Your task to perform on an android device: open chrome privacy settings Image 0: 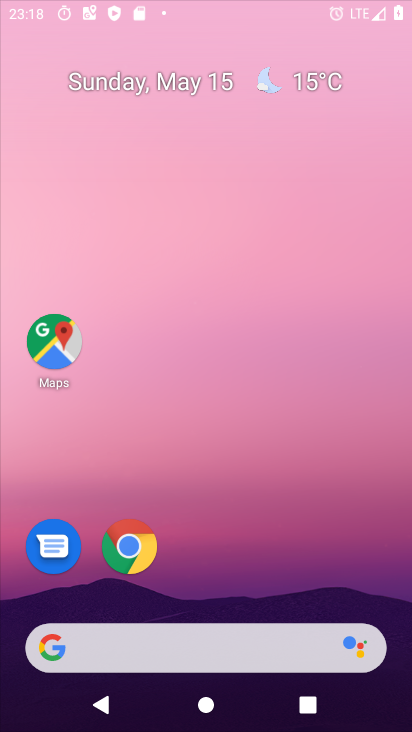
Step 0: drag from (180, 4) to (136, 52)
Your task to perform on an android device: open chrome privacy settings Image 1: 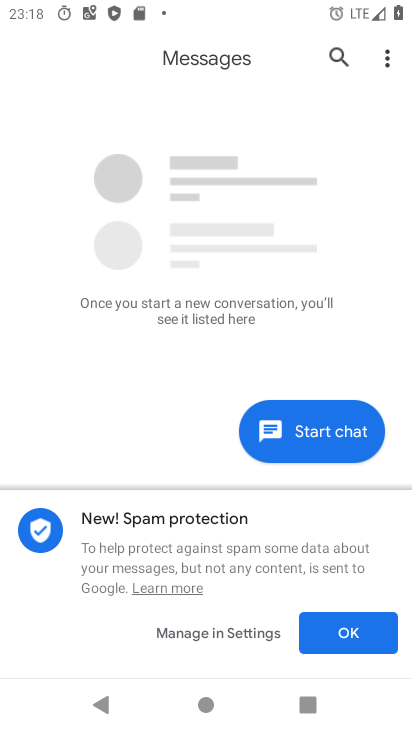
Step 1: press back button
Your task to perform on an android device: open chrome privacy settings Image 2: 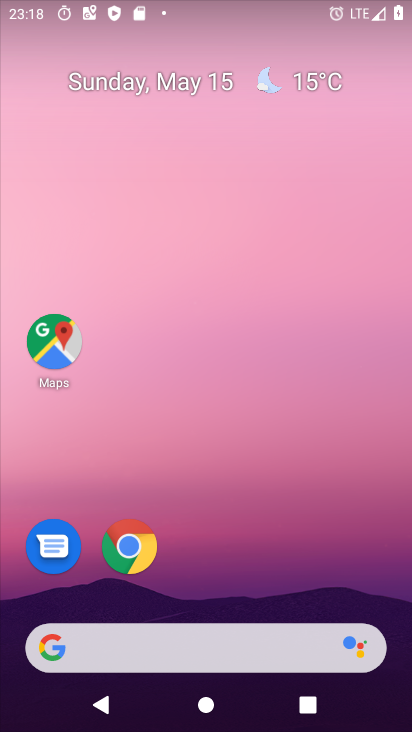
Step 2: drag from (232, 642) to (124, 63)
Your task to perform on an android device: open chrome privacy settings Image 3: 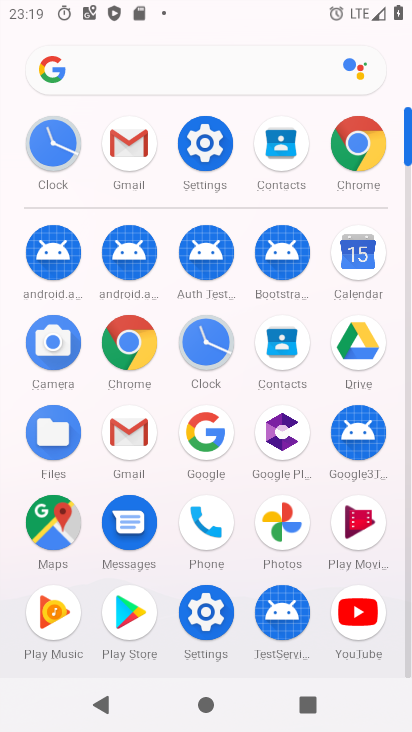
Step 3: click (203, 605)
Your task to perform on an android device: open chrome privacy settings Image 4: 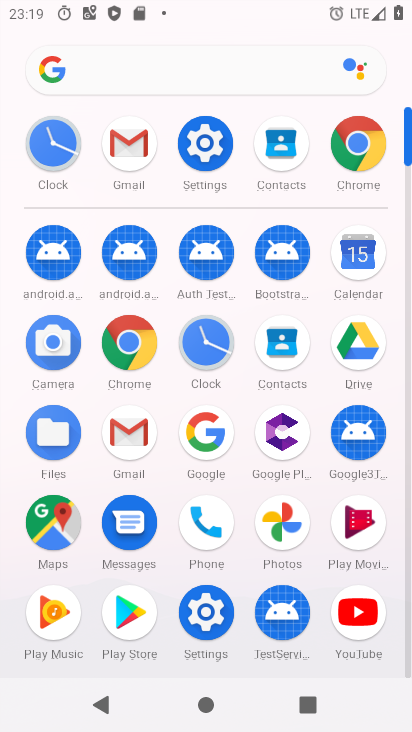
Step 4: click (204, 606)
Your task to perform on an android device: open chrome privacy settings Image 5: 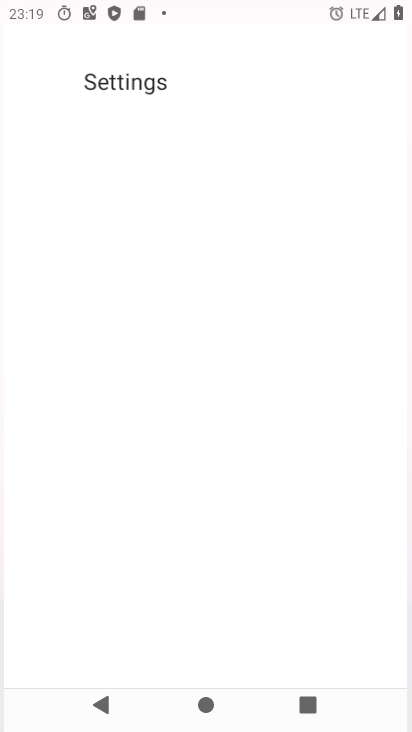
Step 5: click (206, 608)
Your task to perform on an android device: open chrome privacy settings Image 6: 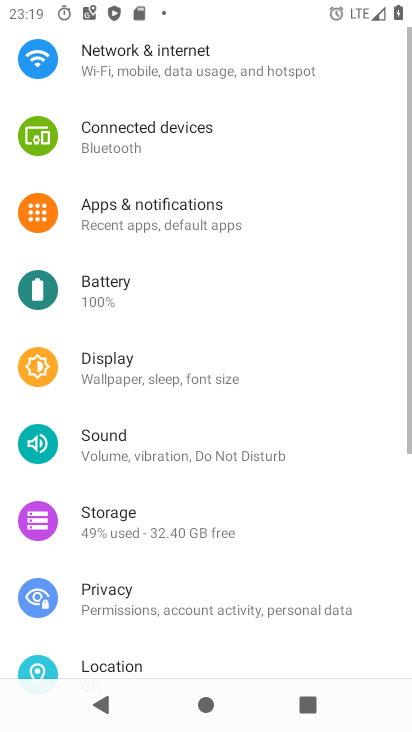
Step 6: click (207, 609)
Your task to perform on an android device: open chrome privacy settings Image 7: 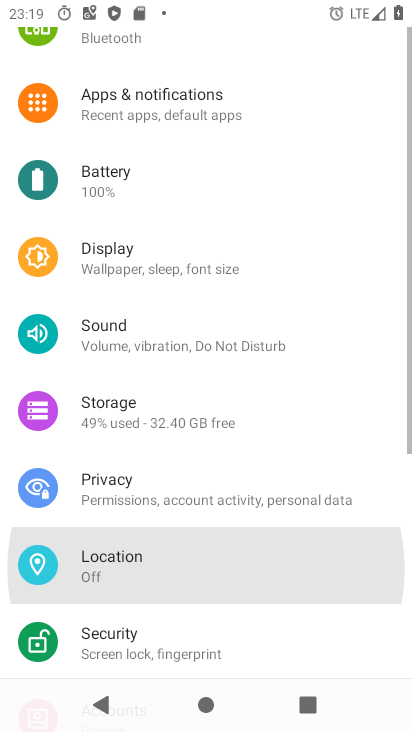
Step 7: click (208, 610)
Your task to perform on an android device: open chrome privacy settings Image 8: 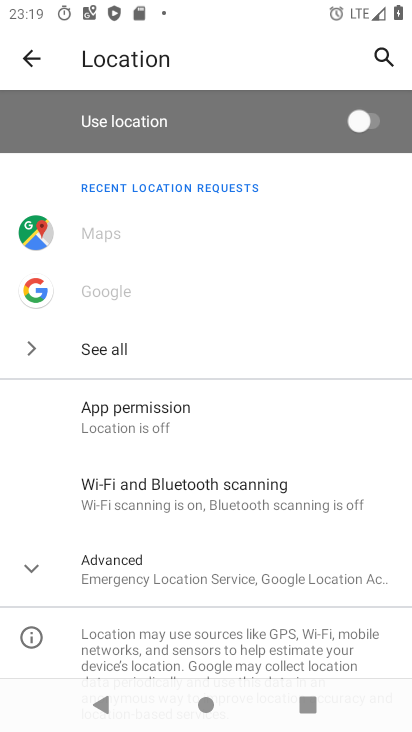
Step 8: click (28, 52)
Your task to perform on an android device: open chrome privacy settings Image 9: 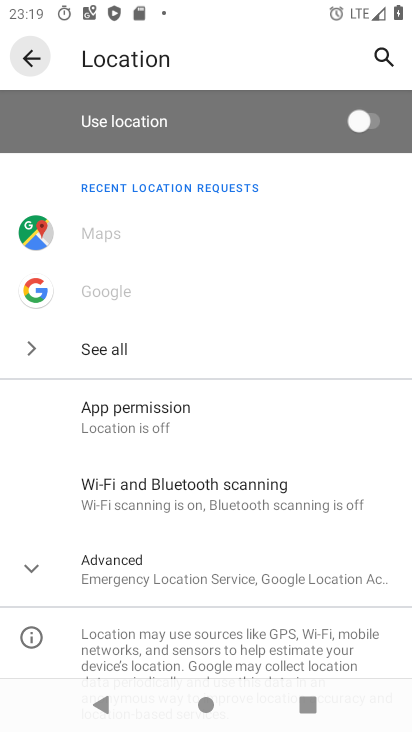
Step 9: click (29, 55)
Your task to perform on an android device: open chrome privacy settings Image 10: 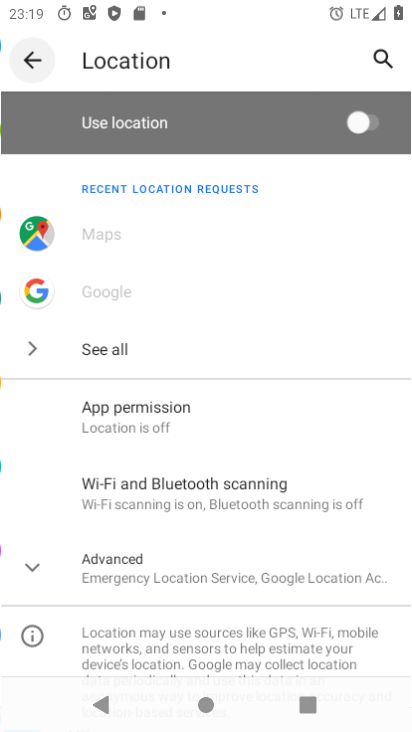
Step 10: click (30, 57)
Your task to perform on an android device: open chrome privacy settings Image 11: 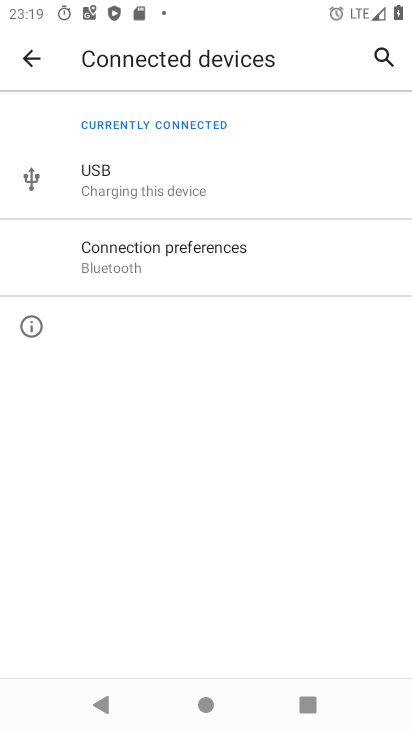
Step 11: click (26, 46)
Your task to perform on an android device: open chrome privacy settings Image 12: 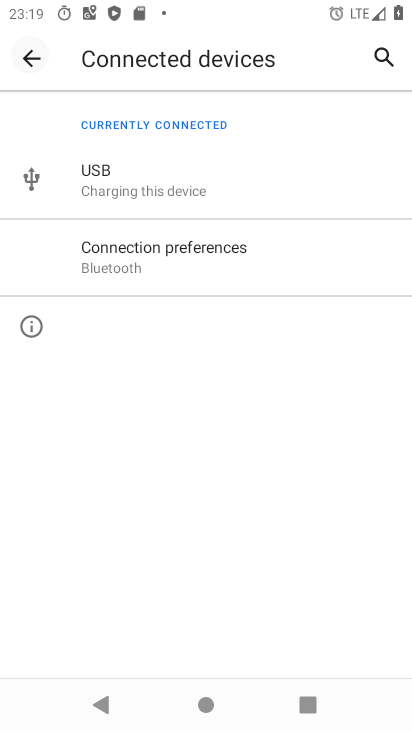
Step 12: click (26, 46)
Your task to perform on an android device: open chrome privacy settings Image 13: 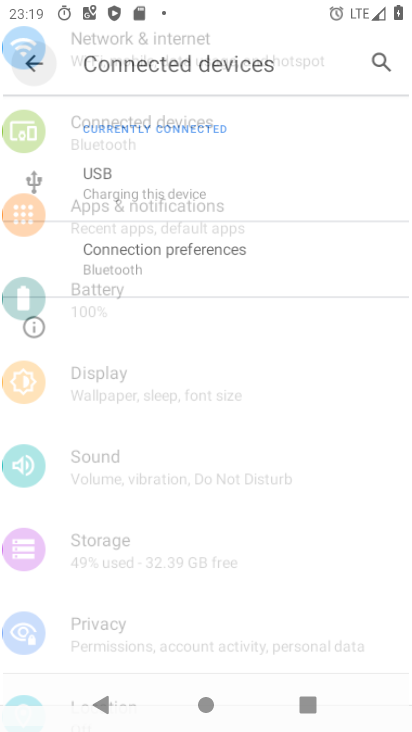
Step 13: click (25, 50)
Your task to perform on an android device: open chrome privacy settings Image 14: 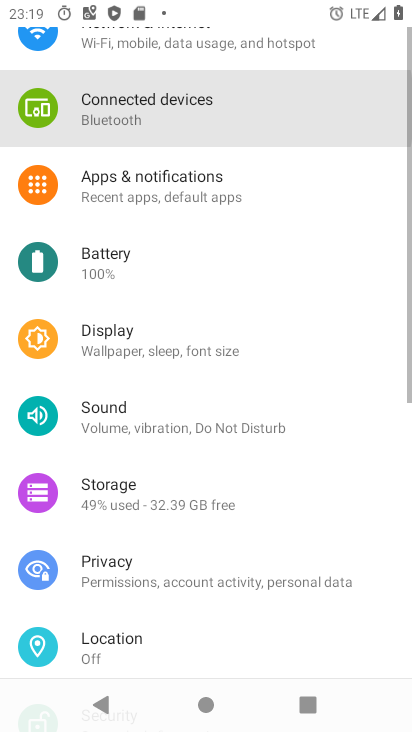
Step 14: click (25, 56)
Your task to perform on an android device: open chrome privacy settings Image 15: 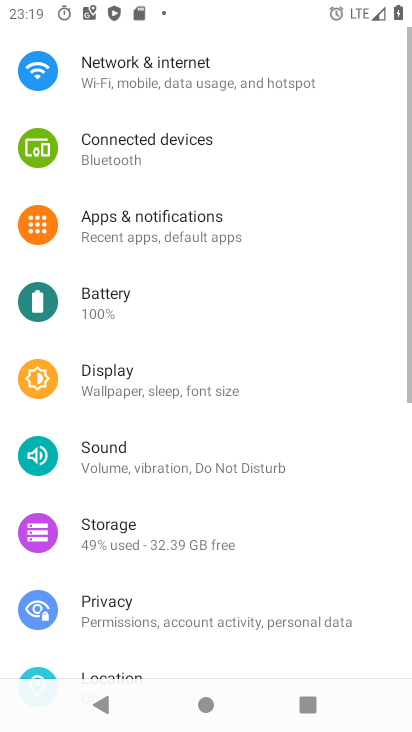
Step 15: click (25, 56)
Your task to perform on an android device: open chrome privacy settings Image 16: 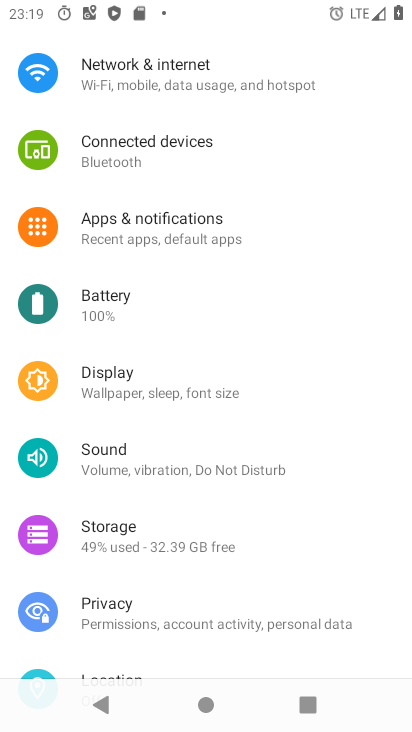
Step 16: drag from (141, 197) to (163, 390)
Your task to perform on an android device: open chrome privacy settings Image 17: 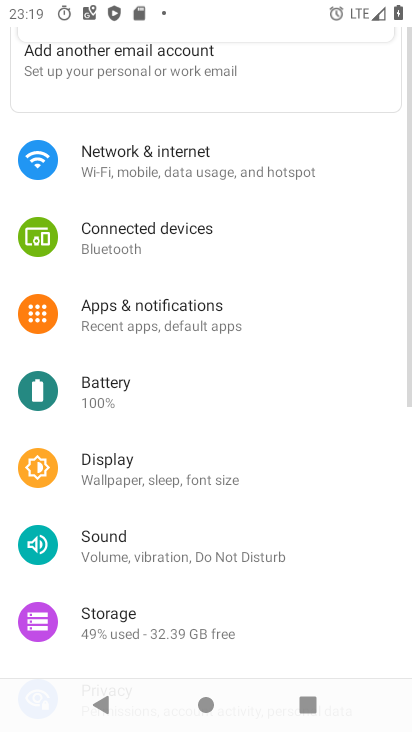
Step 17: drag from (134, 147) to (182, 521)
Your task to perform on an android device: open chrome privacy settings Image 18: 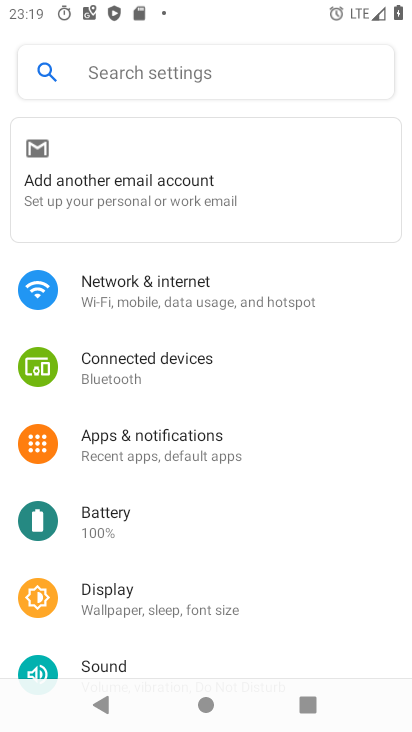
Step 18: drag from (138, 533) to (131, 46)
Your task to perform on an android device: open chrome privacy settings Image 19: 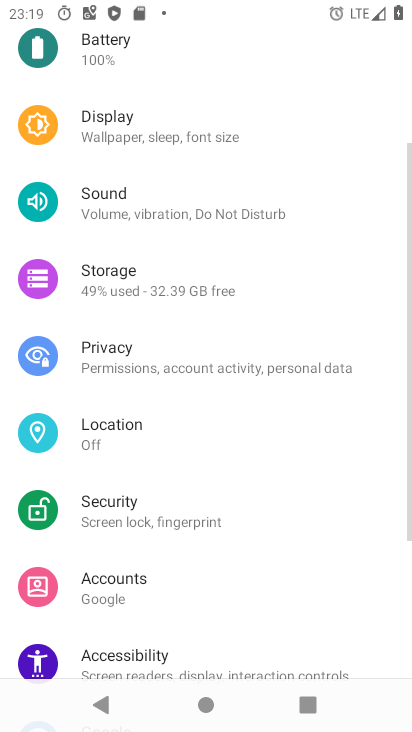
Step 19: drag from (134, 353) to (92, 94)
Your task to perform on an android device: open chrome privacy settings Image 20: 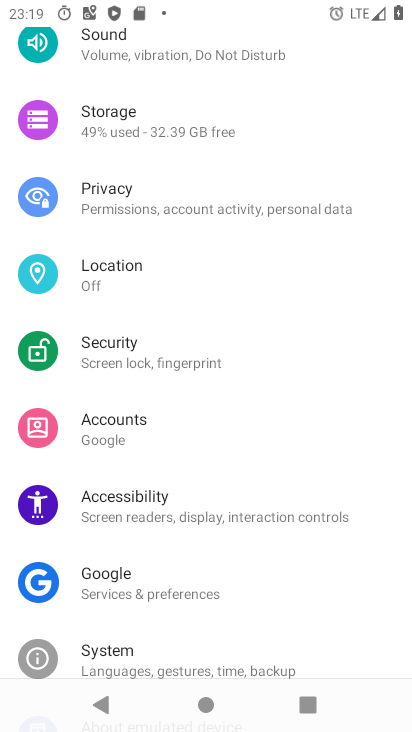
Step 20: click (109, 191)
Your task to perform on an android device: open chrome privacy settings Image 21: 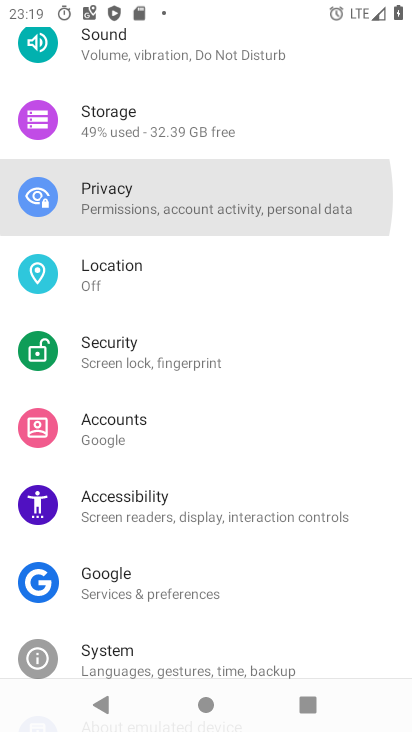
Step 21: click (110, 192)
Your task to perform on an android device: open chrome privacy settings Image 22: 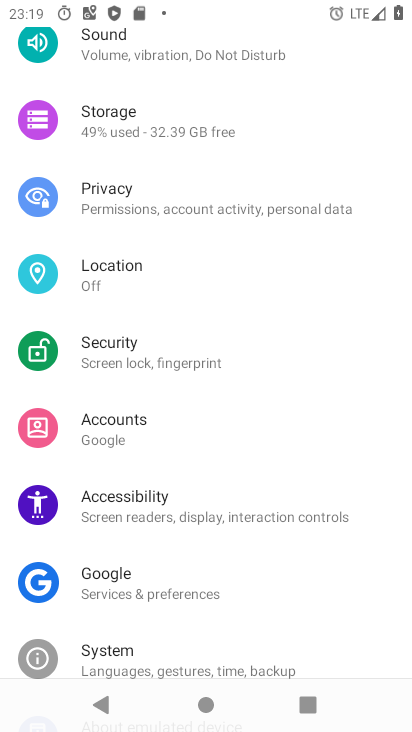
Step 22: click (110, 192)
Your task to perform on an android device: open chrome privacy settings Image 23: 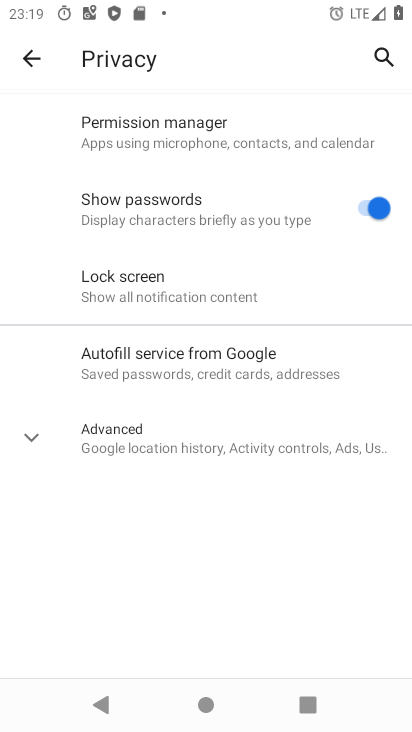
Step 23: task complete